Your task to perform on an android device: check google app version Image 0: 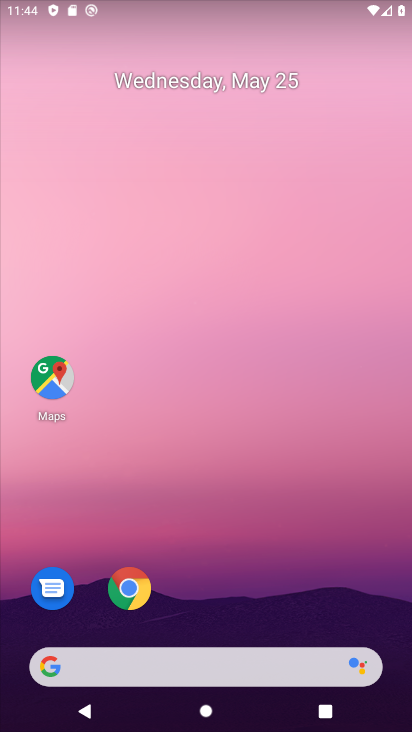
Step 0: drag from (232, 380) to (347, 10)
Your task to perform on an android device: check google app version Image 1: 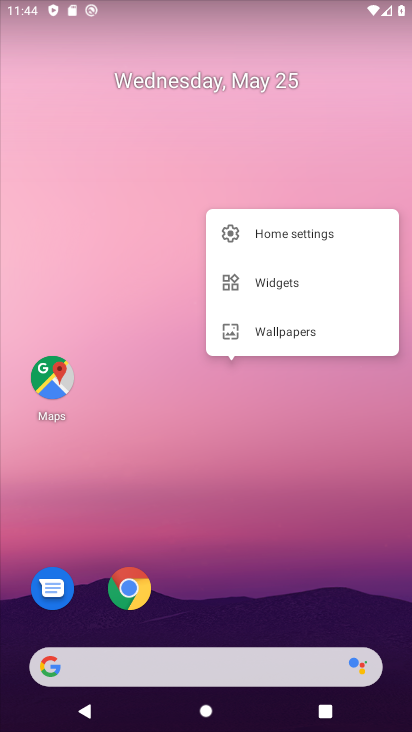
Step 1: drag from (183, 607) to (186, 284)
Your task to perform on an android device: check google app version Image 2: 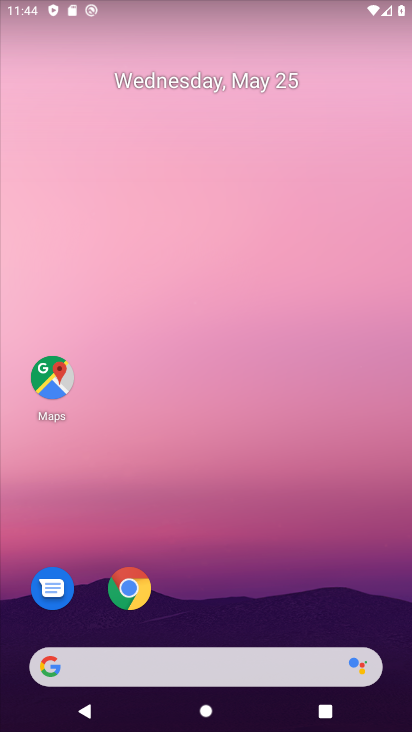
Step 2: drag from (197, 607) to (224, 222)
Your task to perform on an android device: check google app version Image 3: 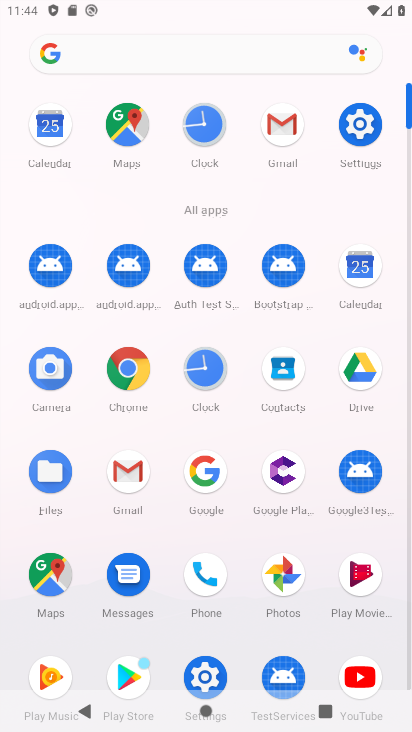
Step 3: click (202, 473)
Your task to perform on an android device: check google app version Image 4: 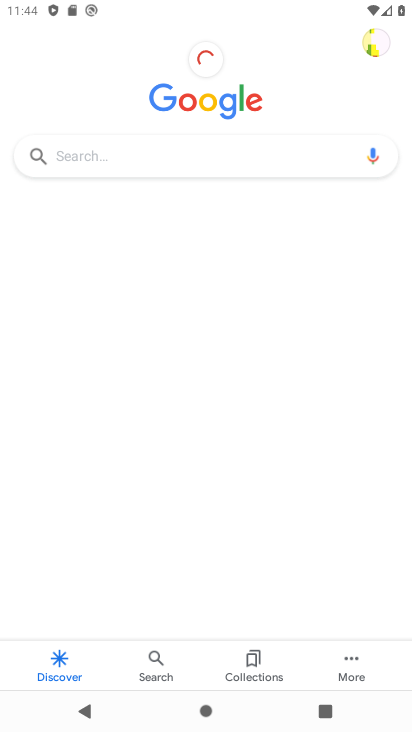
Step 4: click (355, 675)
Your task to perform on an android device: check google app version Image 5: 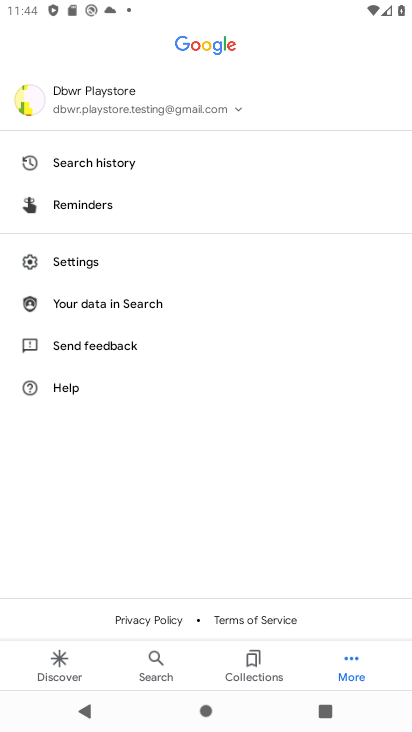
Step 5: click (65, 262)
Your task to perform on an android device: check google app version Image 6: 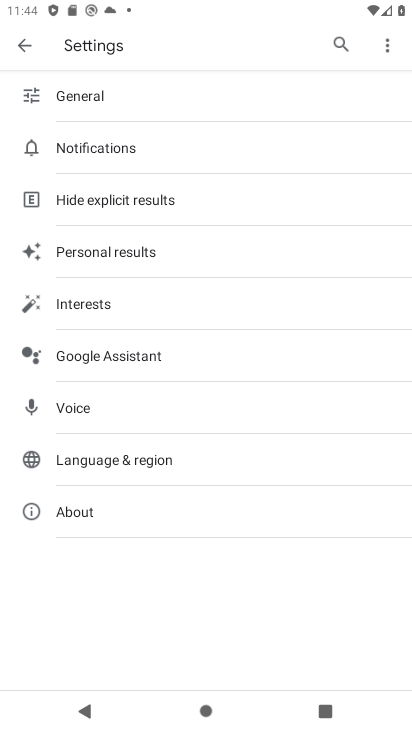
Step 6: click (77, 513)
Your task to perform on an android device: check google app version Image 7: 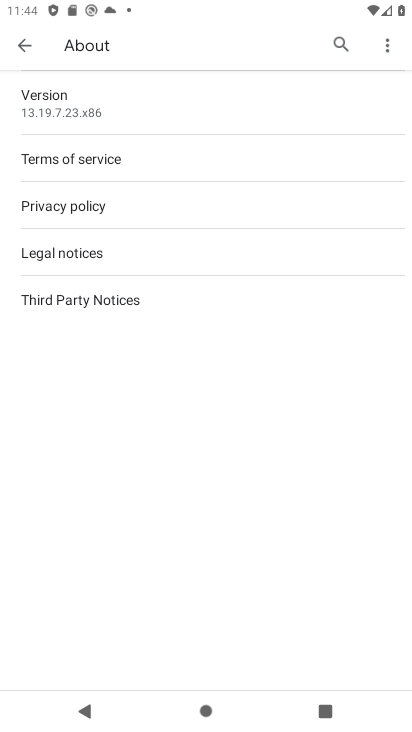
Step 7: click (51, 102)
Your task to perform on an android device: check google app version Image 8: 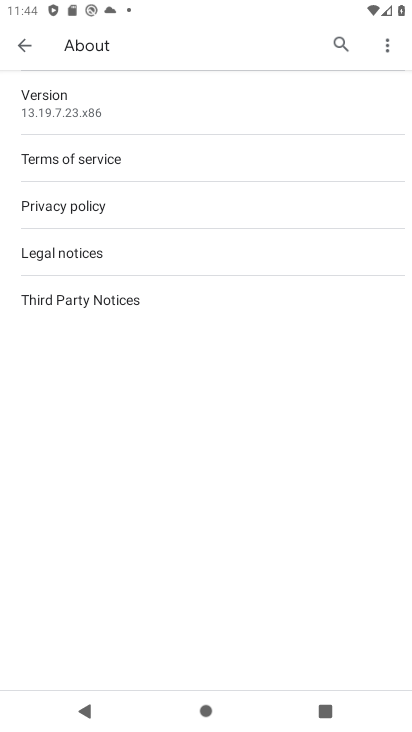
Step 8: task complete